Your task to perform on an android device: Open display settings Image 0: 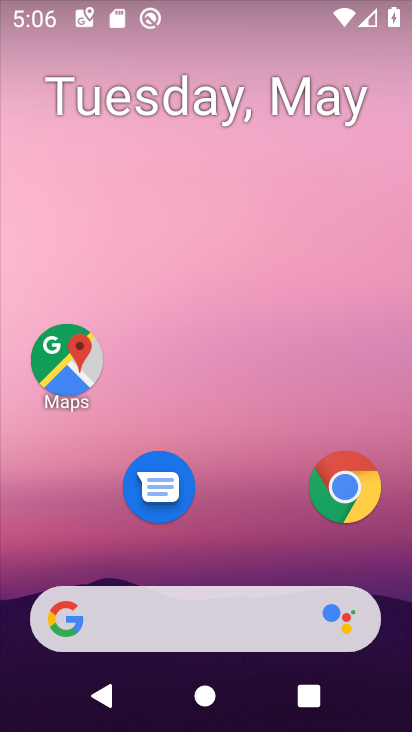
Step 0: drag from (270, 566) to (270, 2)
Your task to perform on an android device: Open display settings Image 1: 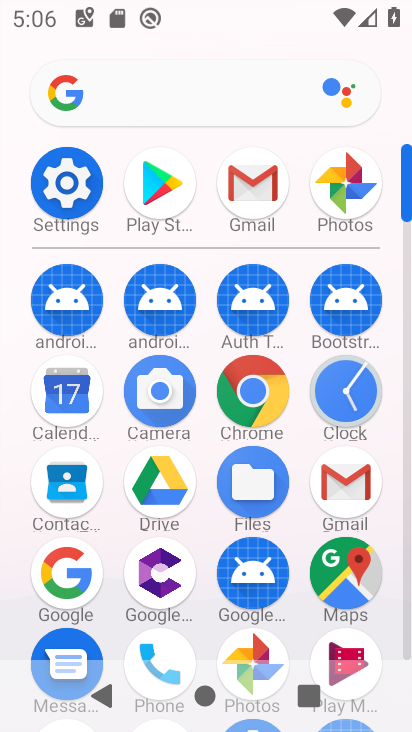
Step 1: click (82, 152)
Your task to perform on an android device: Open display settings Image 2: 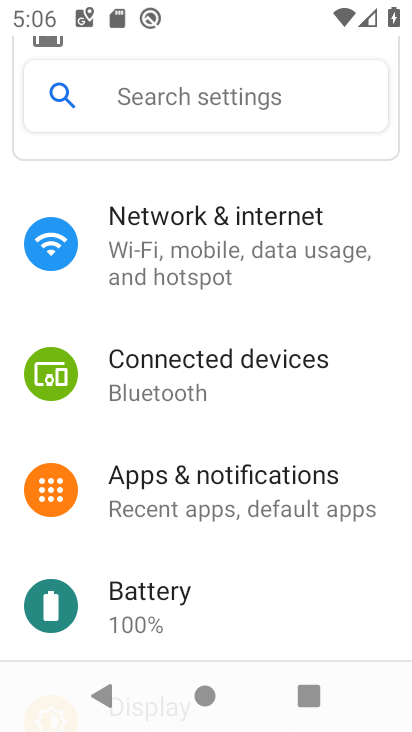
Step 2: drag from (261, 642) to (278, 269)
Your task to perform on an android device: Open display settings Image 3: 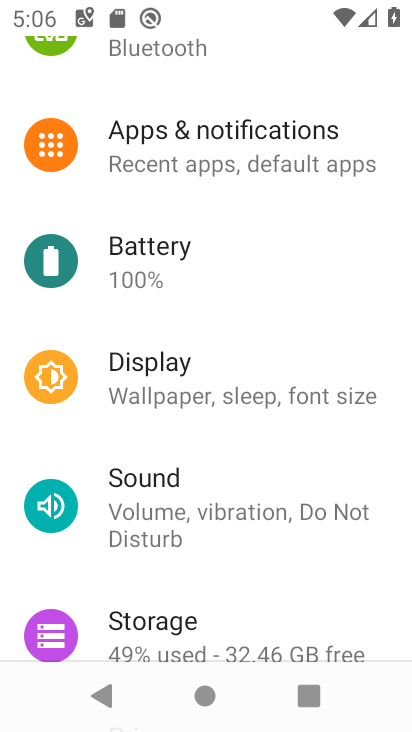
Step 3: click (254, 354)
Your task to perform on an android device: Open display settings Image 4: 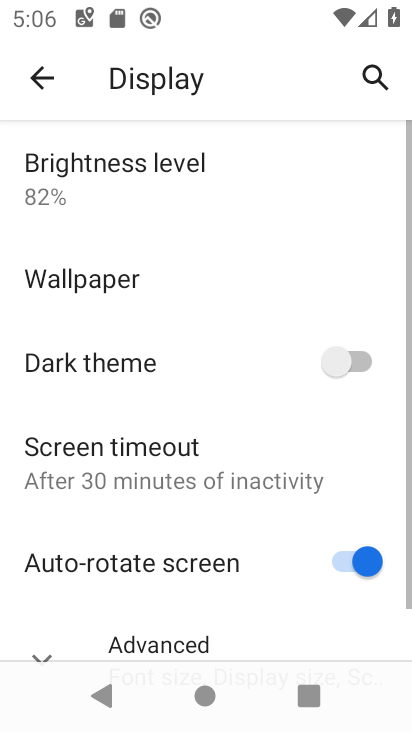
Step 4: task complete